Your task to perform on an android device: Open Google Image 0: 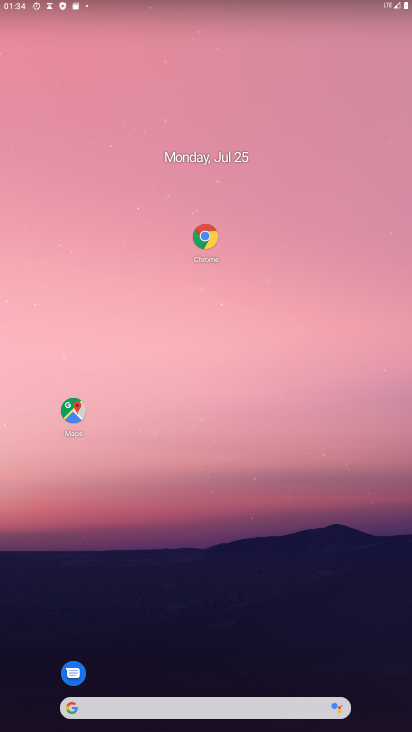
Step 0: drag from (290, 630) to (343, 126)
Your task to perform on an android device: Open Google Image 1: 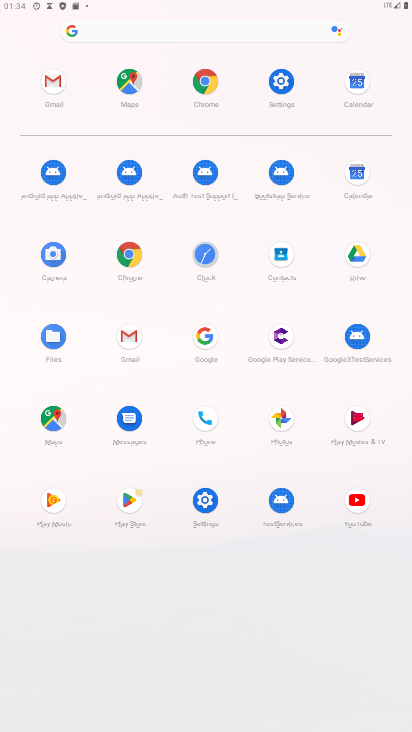
Step 1: click (131, 259)
Your task to perform on an android device: Open Google Image 2: 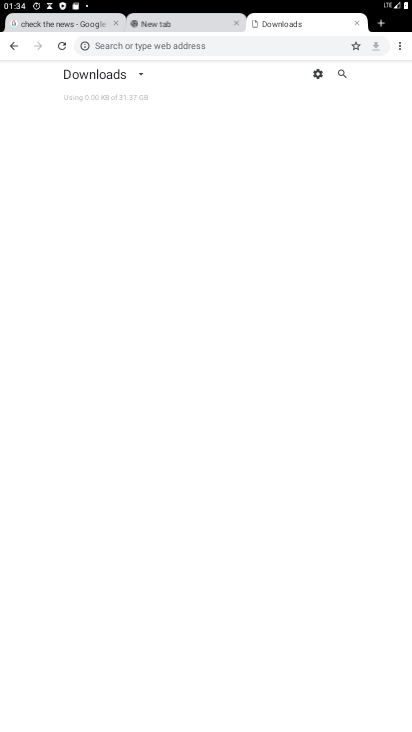
Step 2: task complete